Your task to perform on an android device: turn off smart reply in the gmail app Image 0: 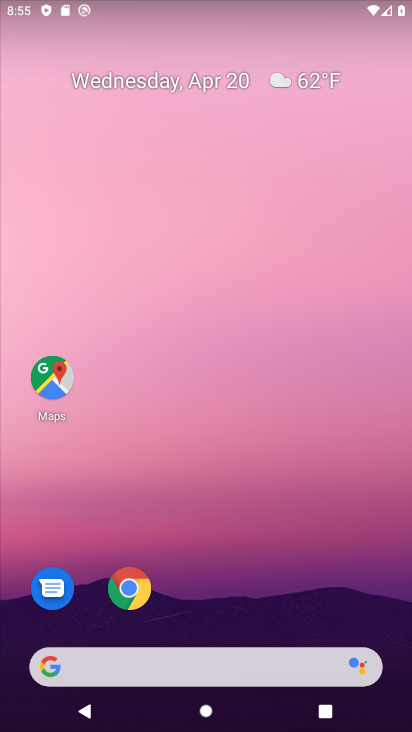
Step 0: drag from (207, 615) to (206, 1)
Your task to perform on an android device: turn off smart reply in the gmail app Image 1: 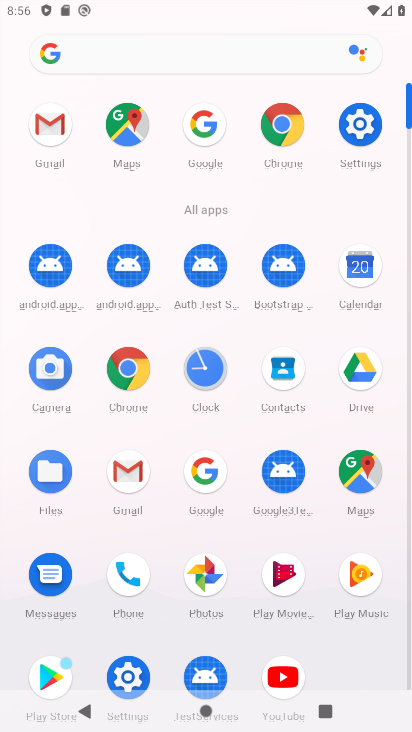
Step 1: click (47, 116)
Your task to perform on an android device: turn off smart reply in the gmail app Image 2: 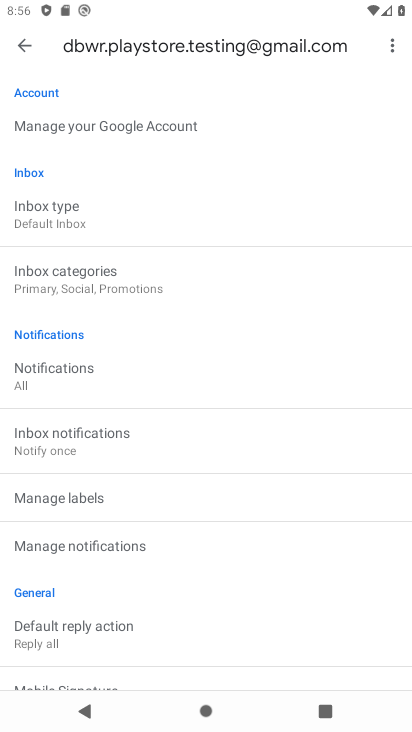
Step 2: drag from (170, 617) to (175, 75)
Your task to perform on an android device: turn off smart reply in the gmail app Image 3: 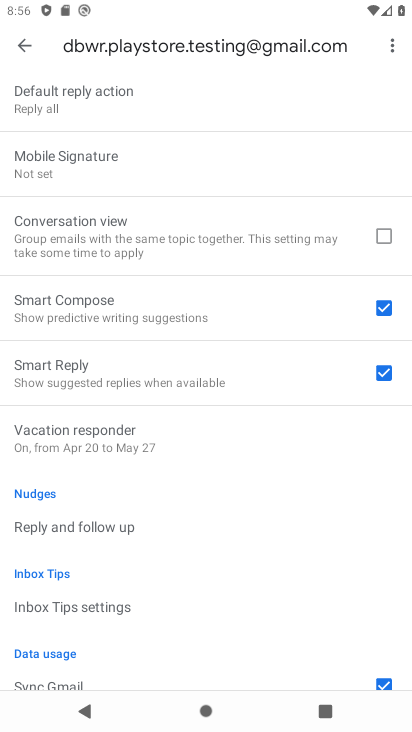
Step 3: click (385, 371)
Your task to perform on an android device: turn off smart reply in the gmail app Image 4: 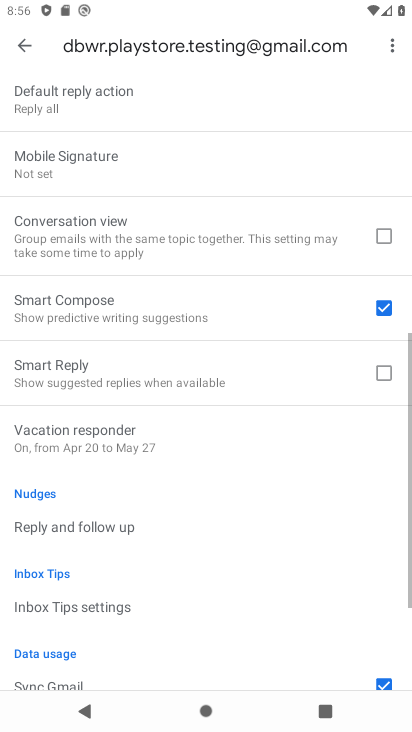
Step 4: task complete